Your task to perform on an android device: Open Maps and search for coffee Image 0: 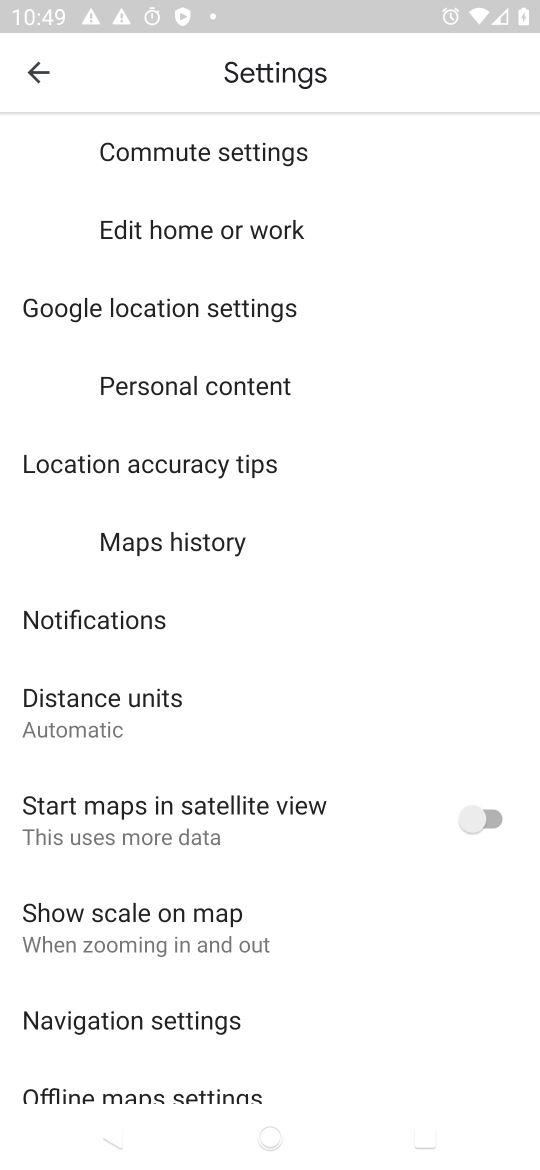
Step 0: drag from (264, 785) to (276, 188)
Your task to perform on an android device: Open Maps and search for coffee Image 1: 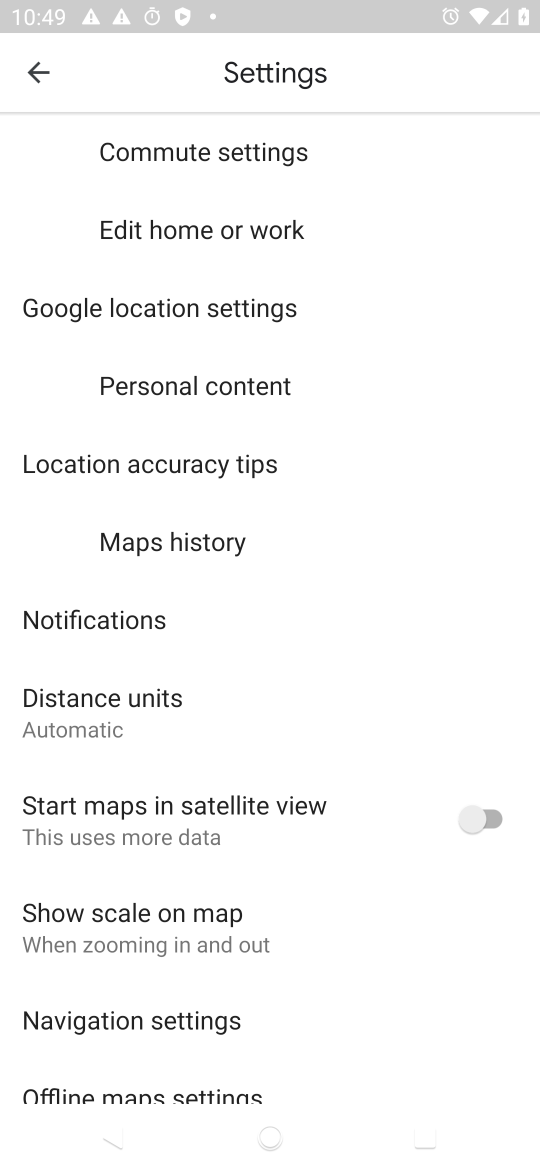
Step 1: press home button
Your task to perform on an android device: Open Maps and search for coffee Image 2: 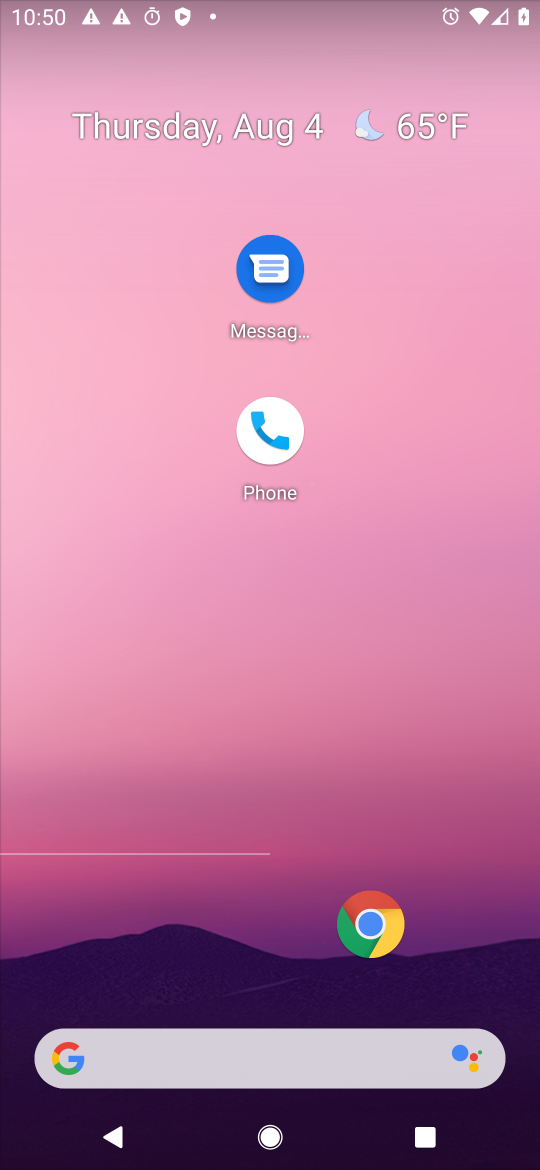
Step 2: drag from (281, 852) to (331, 418)
Your task to perform on an android device: Open Maps and search for coffee Image 3: 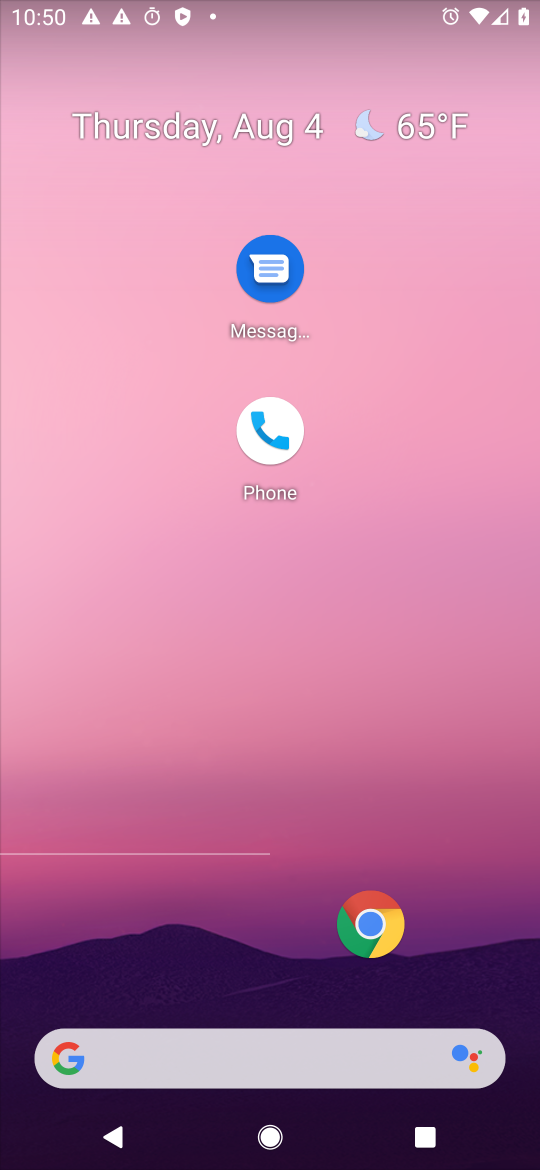
Step 3: click (369, 500)
Your task to perform on an android device: Open Maps and search for coffee Image 4: 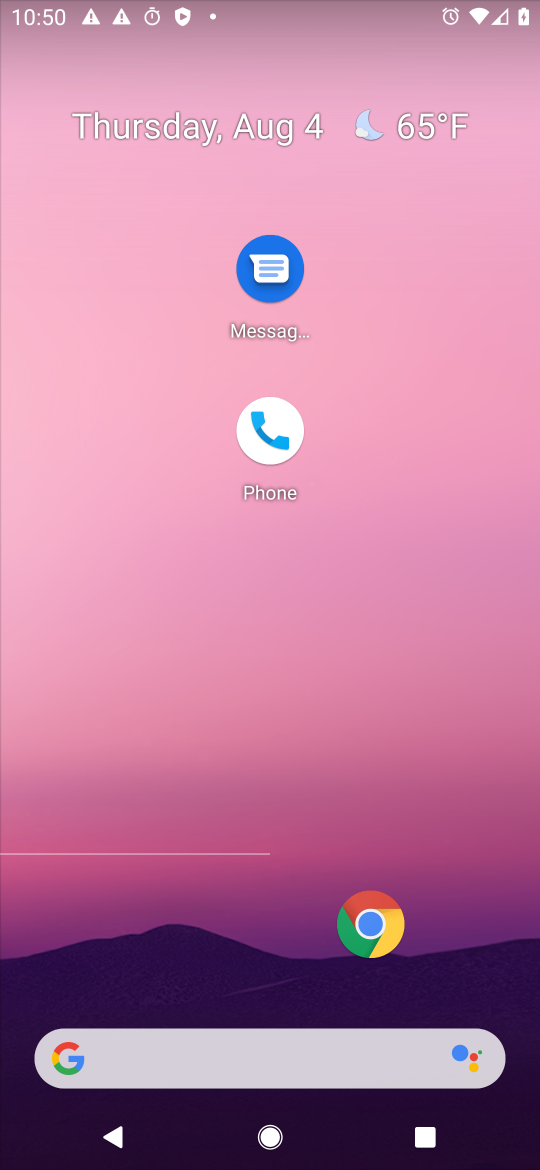
Step 4: click (292, 217)
Your task to perform on an android device: Open Maps and search for coffee Image 5: 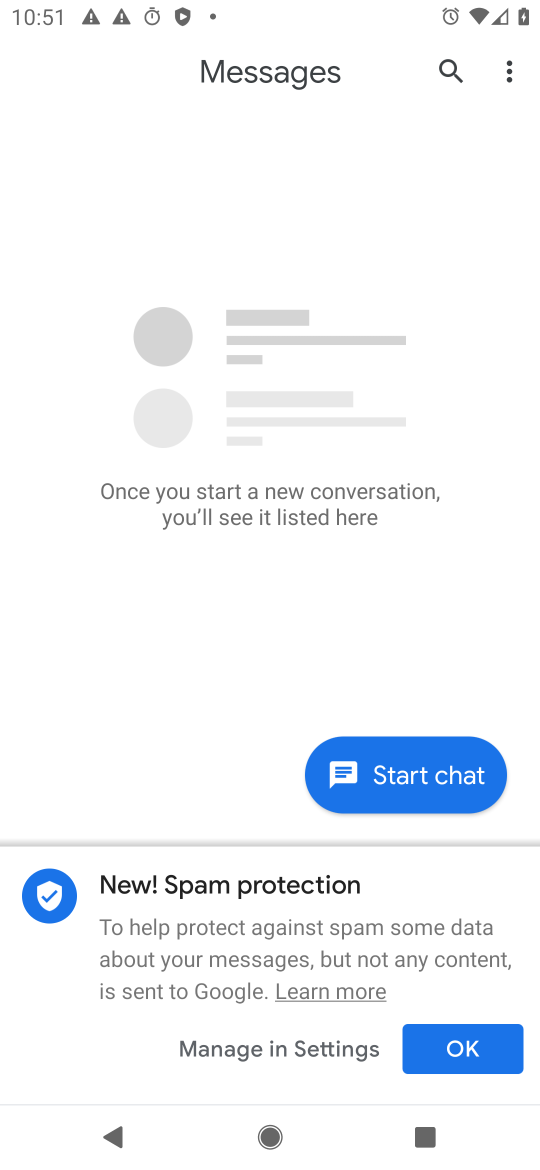
Step 5: press home button
Your task to perform on an android device: Open Maps and search for coffee Image 6: 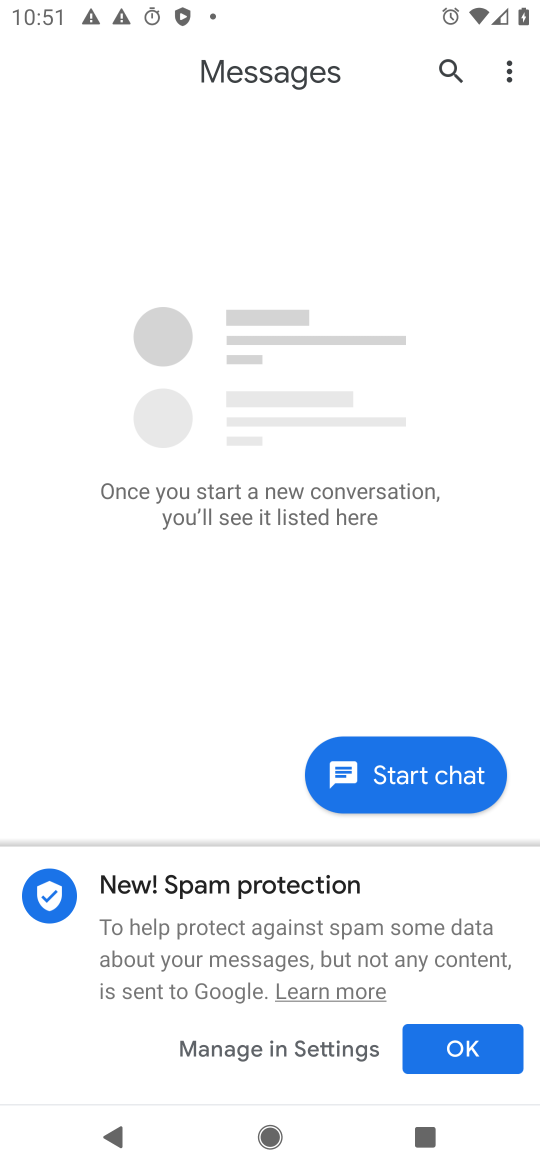
Step 6: drag from (248, 797) to (297, 479)
Your task to perform on an android device: Open Maps and search for coffee Image 7: 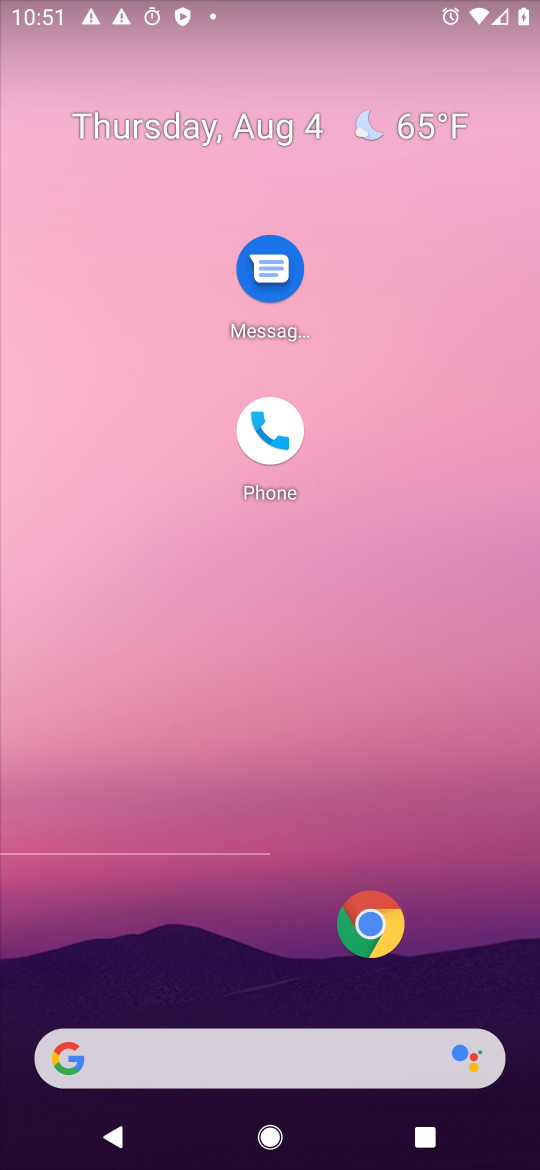
Step 7: drag from (384, 485) to (405, 341)
Your task to perform on an android device: Open Maps and search for coffee Image 8: 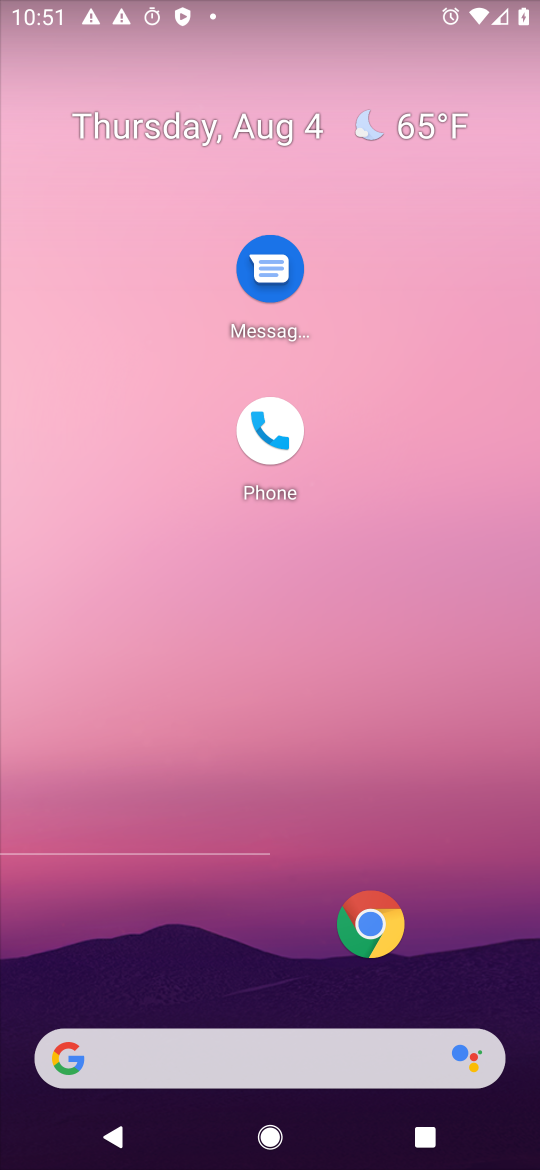
Step 8: drag from (242, 674) to (298, 237)
Your task to perform on an android device: Open Maps and search for coffee Image 9: 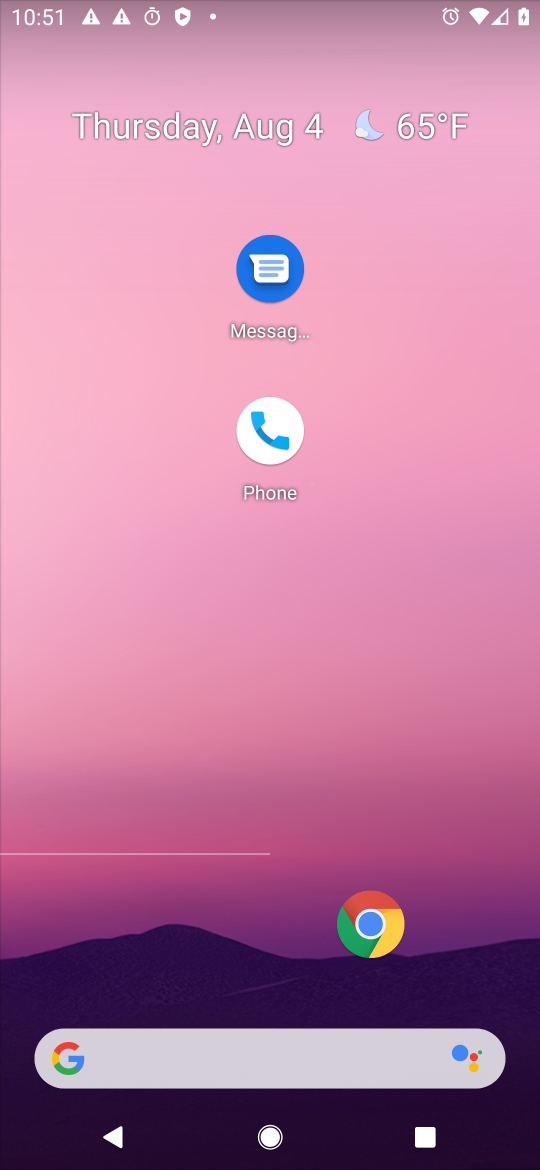
Step 9: drag from (241, 959) to (261, 168)
Your task to perform on an android device: Open Maps and search for coffee Image 10: 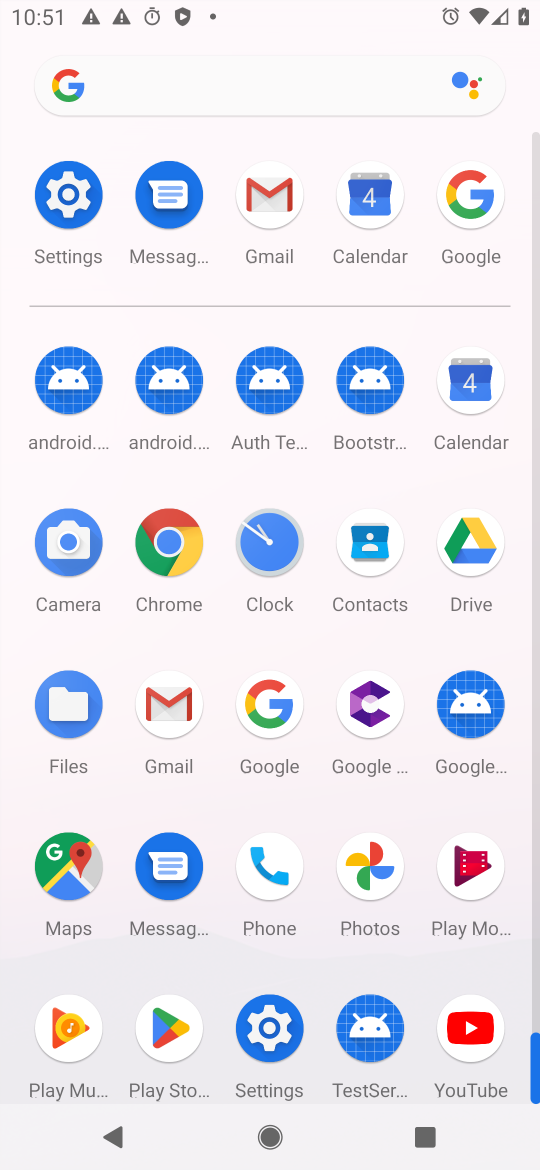
Step 10: click (62, 879)
Your task to perform on an android device: Open Maps and search for coffee Image 11: 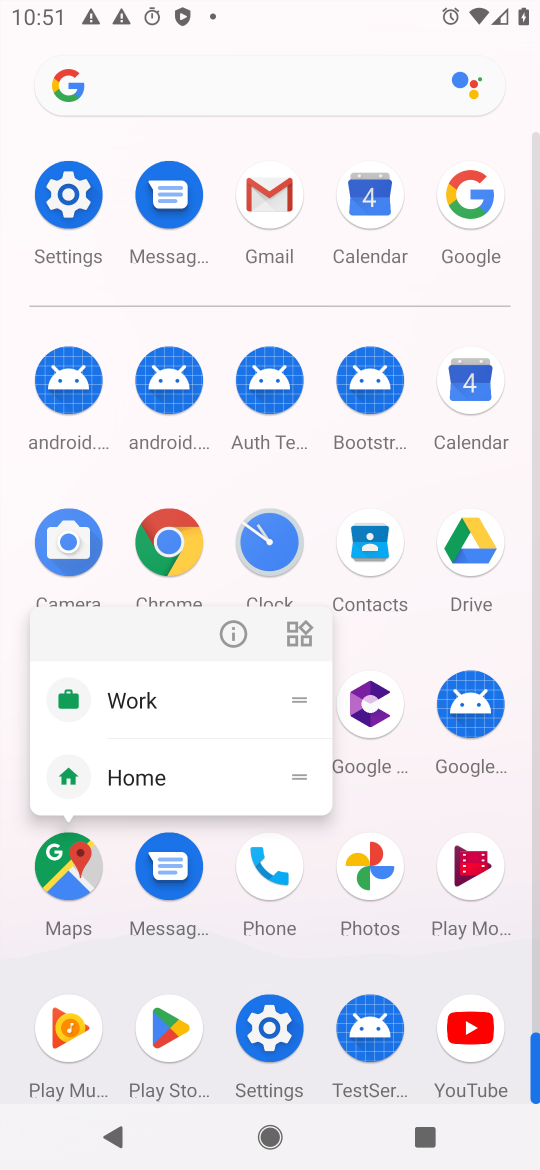
Step 11: click (236, 639)
Your task to perform on an android device: Open Maps and search for coffee Image 12: 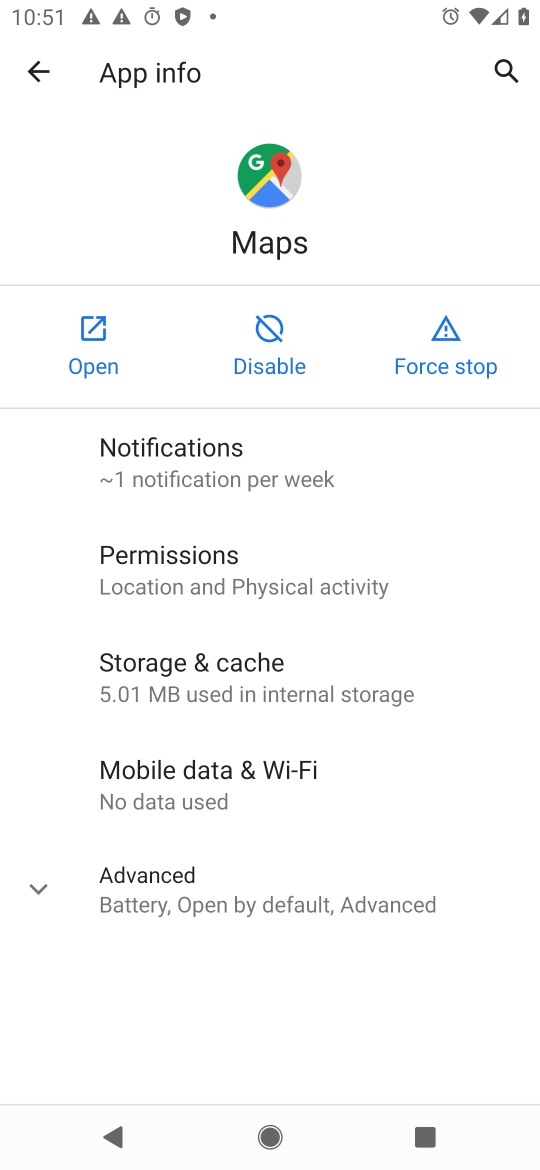
Step 12: click (64, 344)
Your task to perform on an android device: Open Maps and search for coffee Image 13: 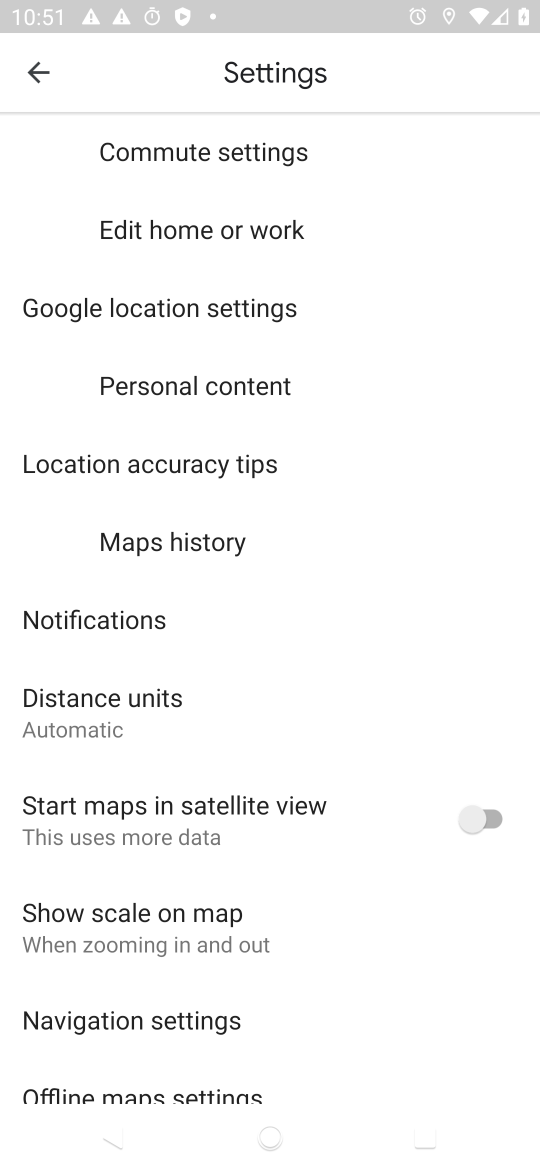
Step 13: click (42, 66)
Your task to perform on an android device: Open Maps and search for coffee Image 14: 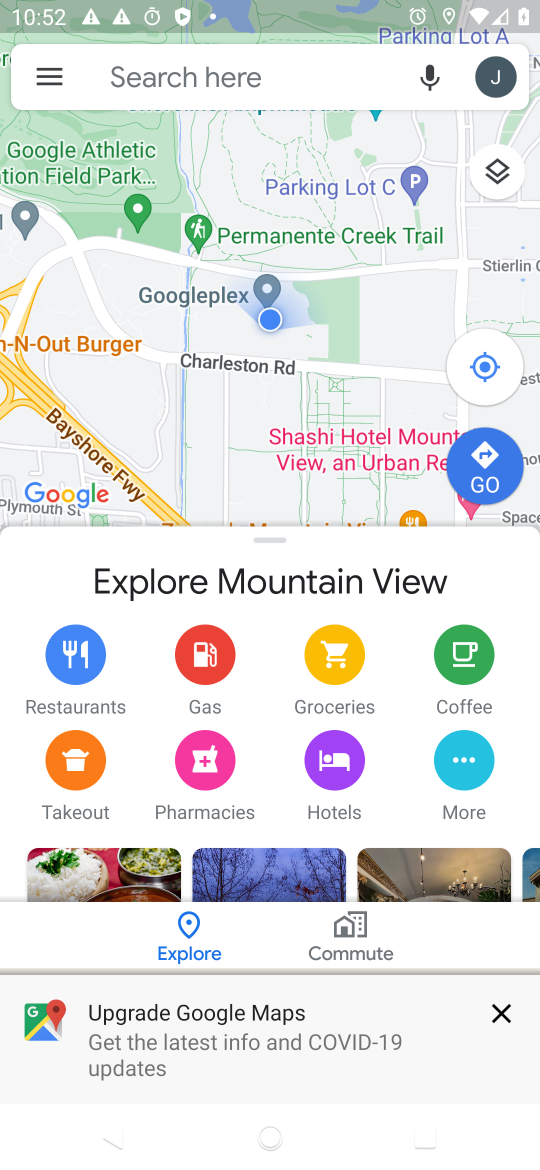
Step 14: click (106, 80)
Your task to perform on an android device: Open Maps and search for coffee Image 15: 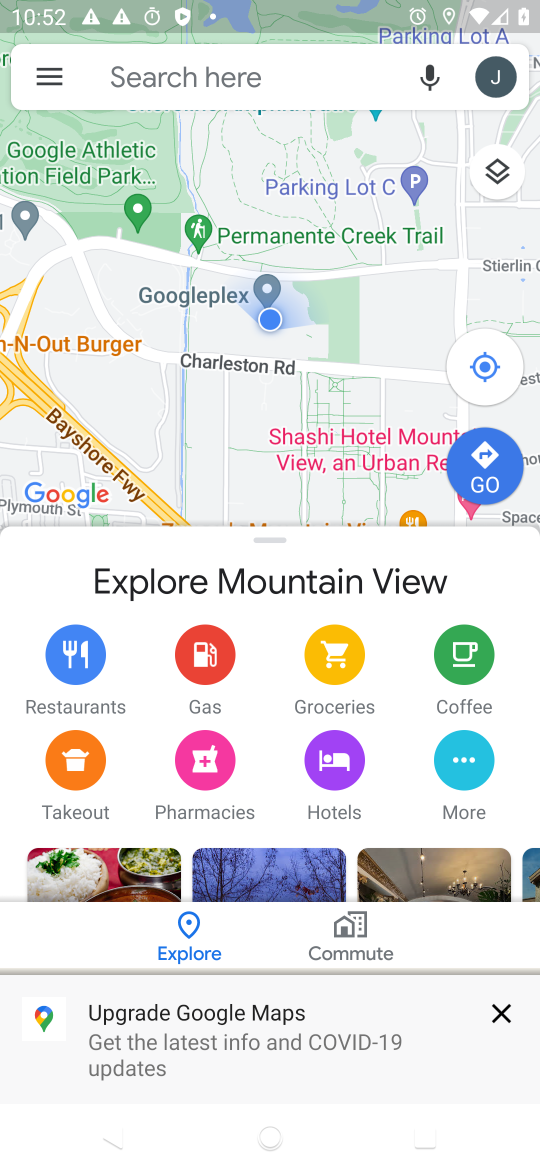
Step 15: click (231, 74)
Your task to perform on an android device: Open Maps and search for coffee Image 16: 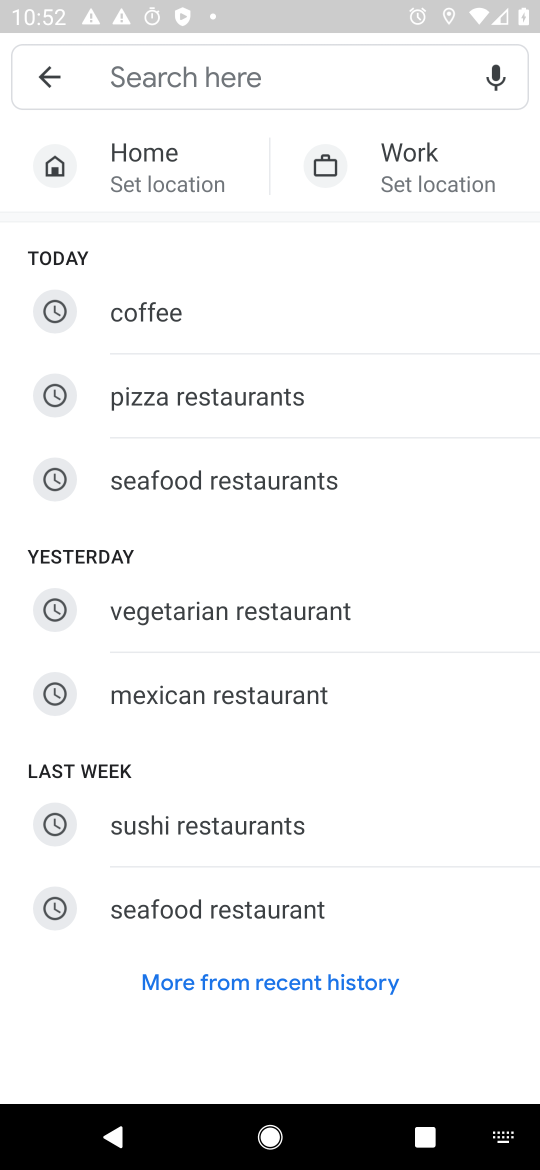
Step 16: click (168, 307)
Your task to perform on an android device: Open Maps and search for coffee Image 17: 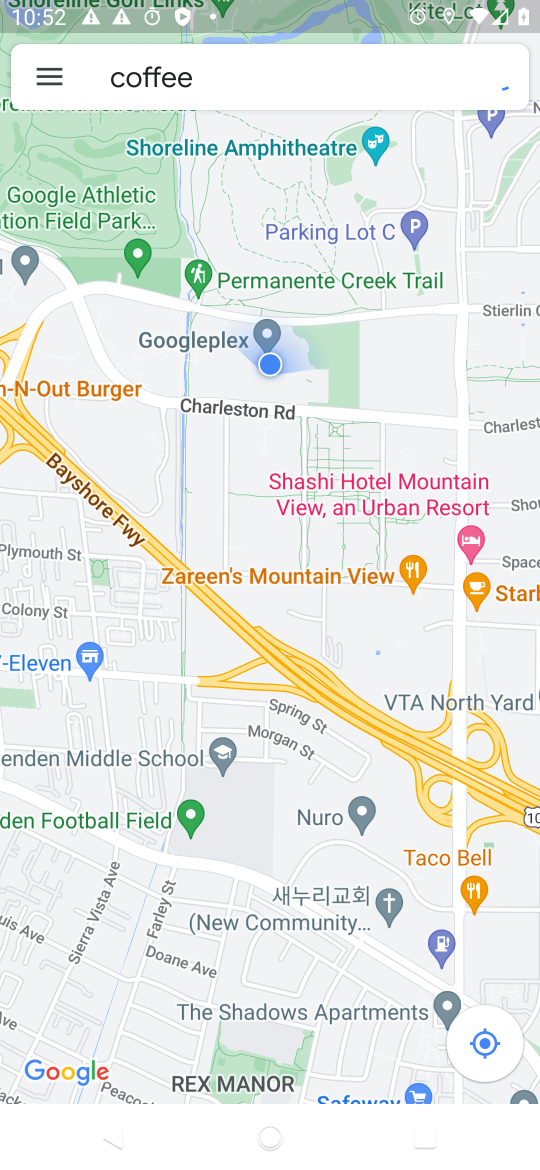
Step 17: task complete